Your task to perform on an android device: open app "YouTube Kids" (install if not already installed) Image 0: 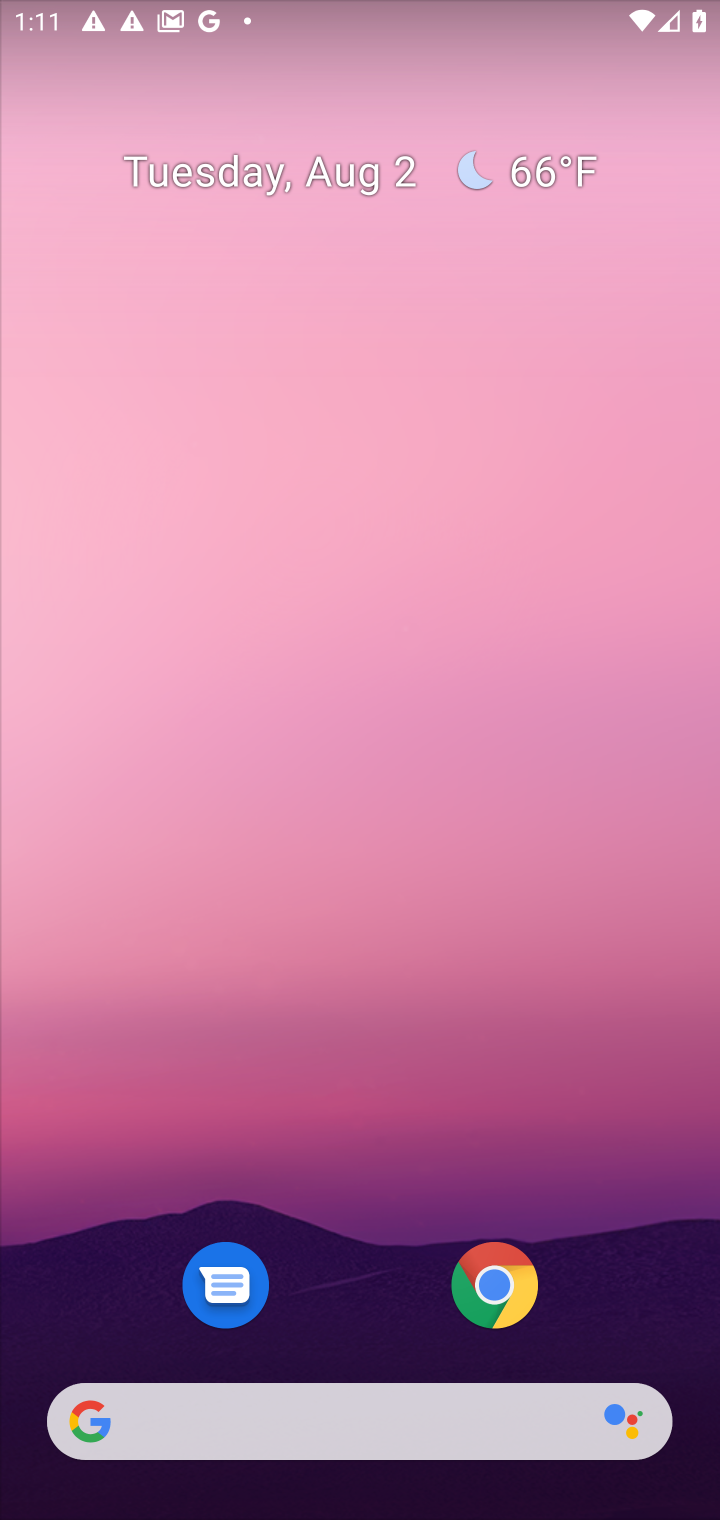
Step 0: drag from (391, 651) to (434, 389)
Your task to perform on an android device: open app "YouTube Kids" (install if not already installed) Image 1: 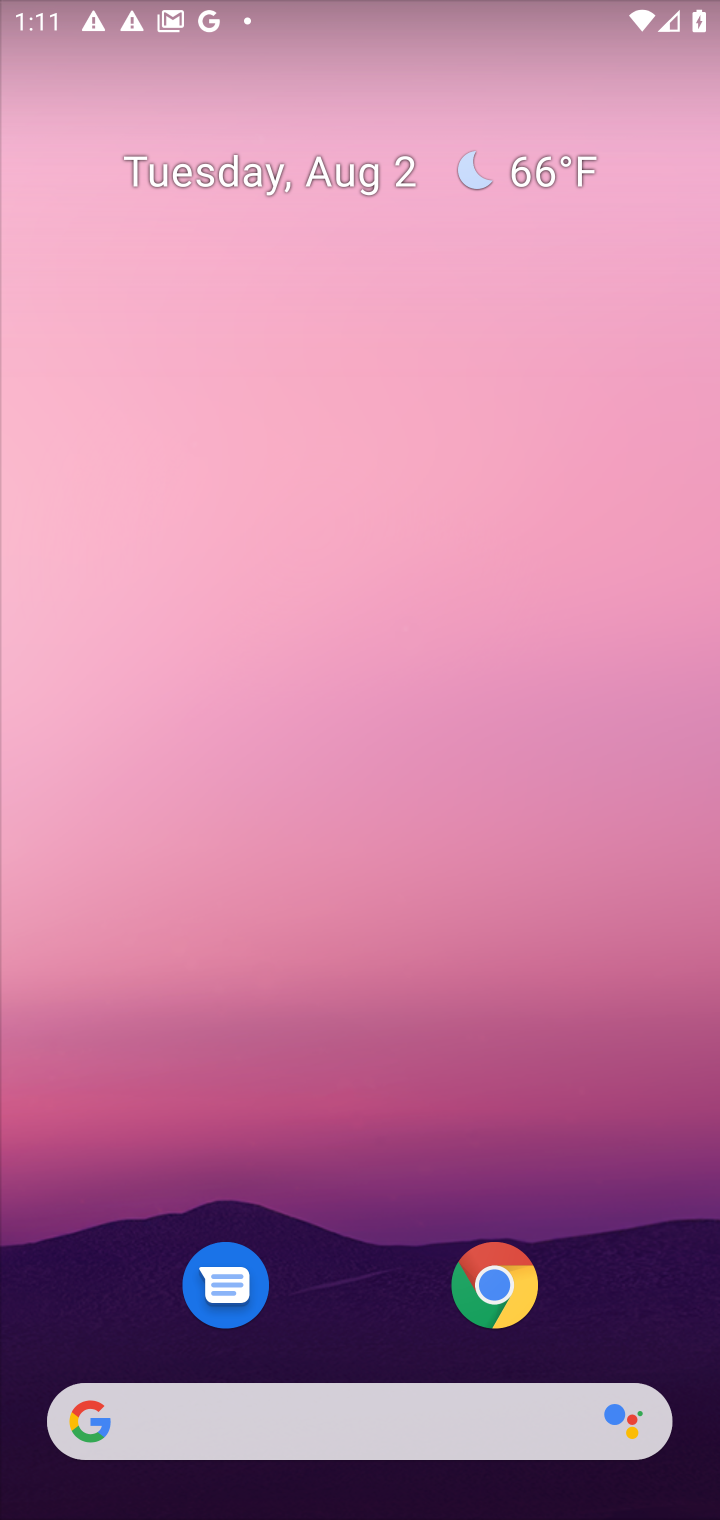
Step 1: drag from (391, 1082) to (421, 253)
Your task to perform on an android device: open app "YouTube Kids" (install if not already installed) Image 2: 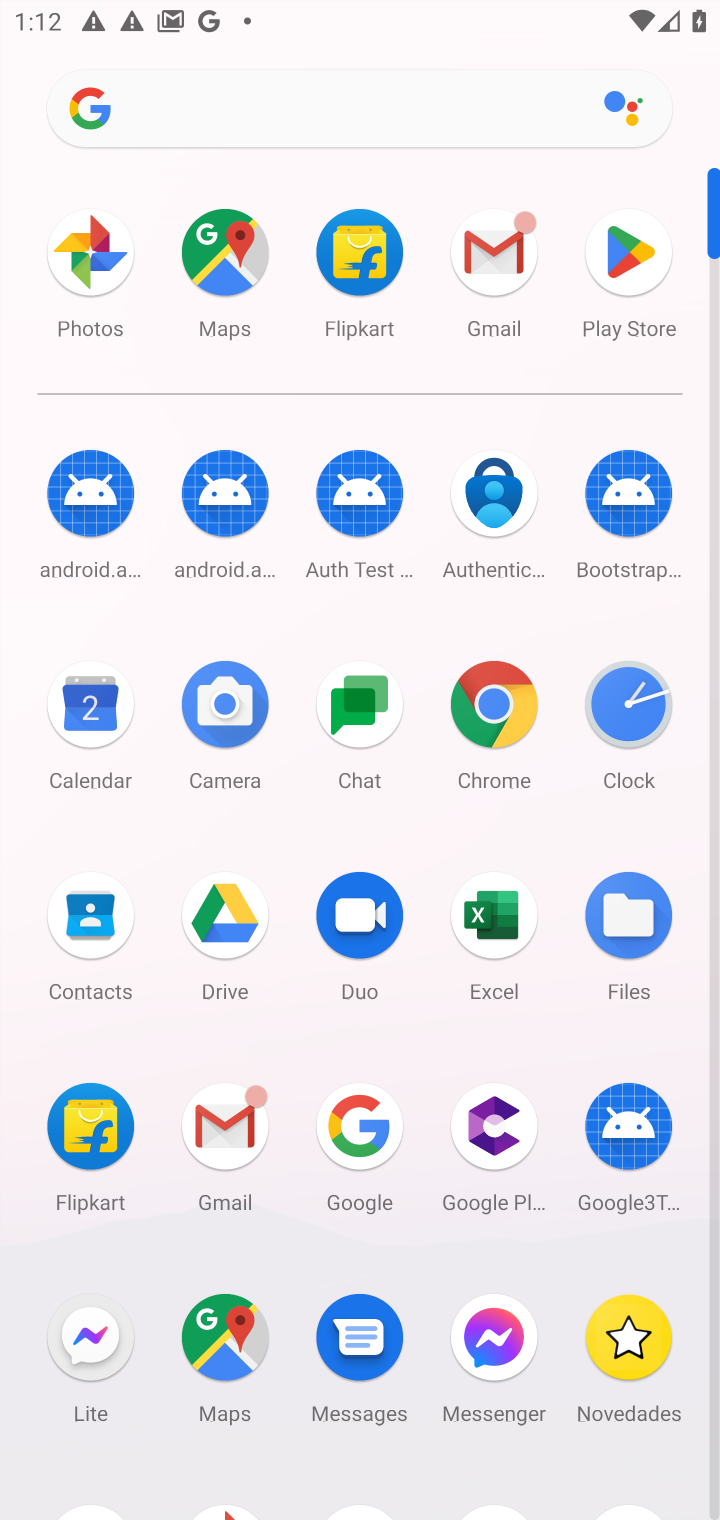
Step 2: drag from (431, 957) to (429, 628)
Your task to perform on an android device: open app "YouTube Kids" (install if not already installed) Image 3: 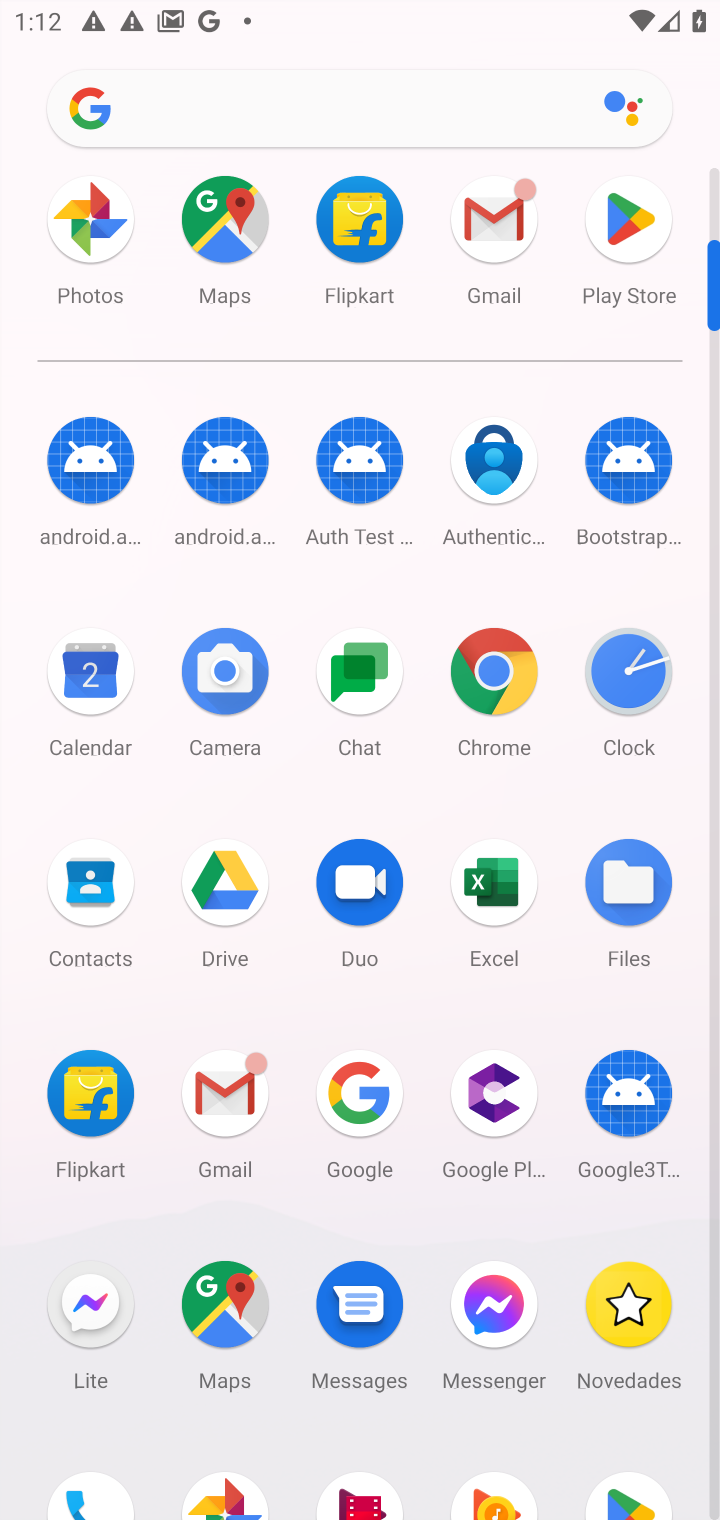
Step 3: click (623, 1491)
Your task to perform on an android device: open app "YouTube Kids" (install if not already installed) Image 4: 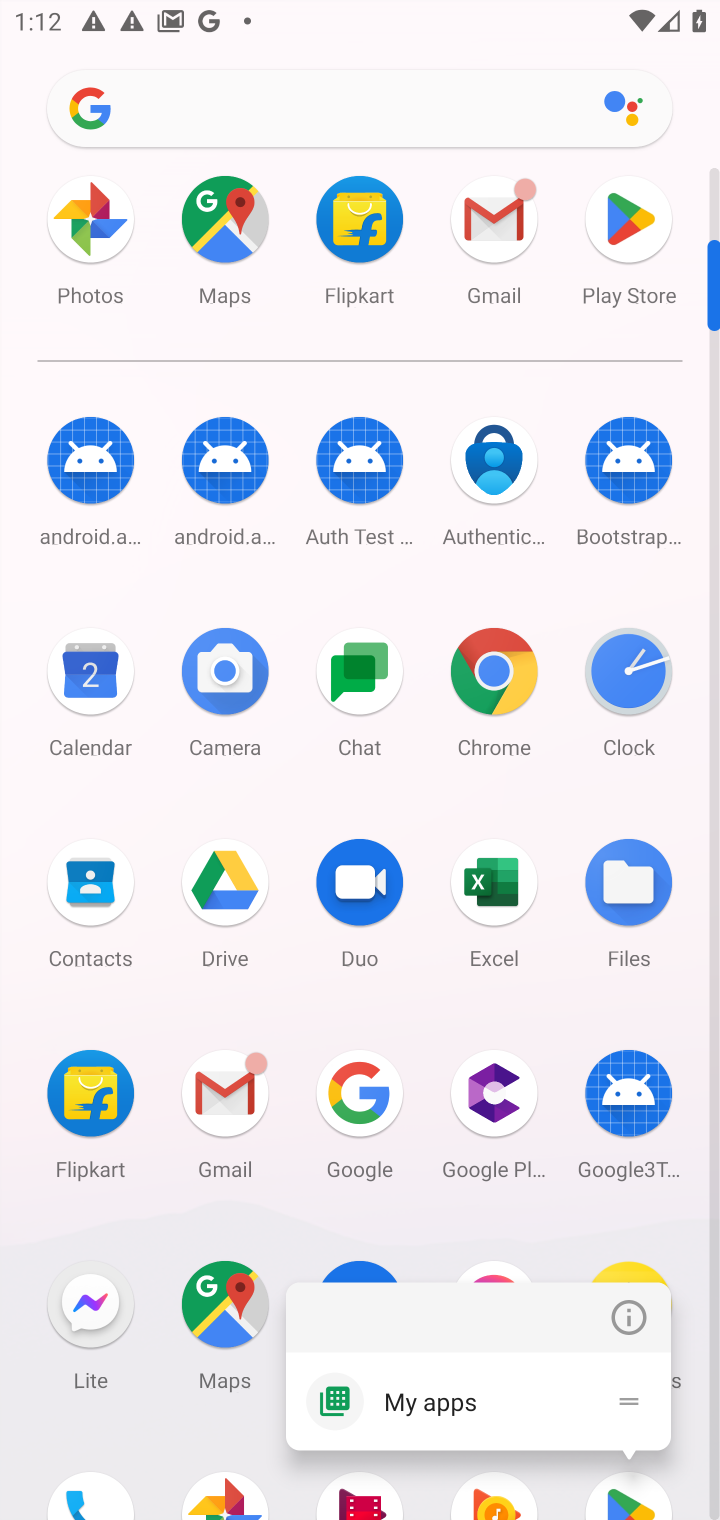
Step 4: click (625, 1504)
Your task to perform on an android device: open app "YouTube Kids" (install if not already installed) Image 5: 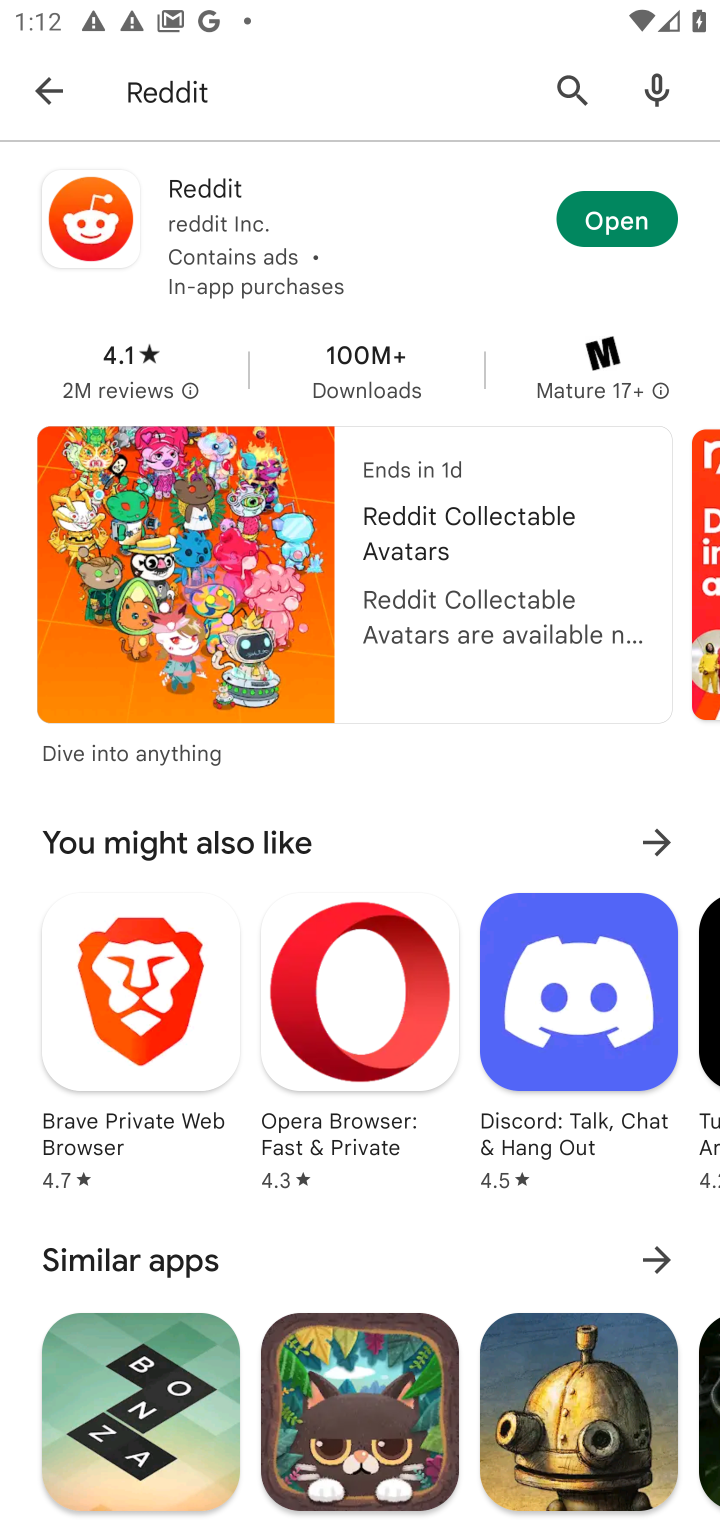
Step 5: click (474, 100)
Your task to perform on an android device: open app "YouTube Kids" (install if not already installed) Image 6: 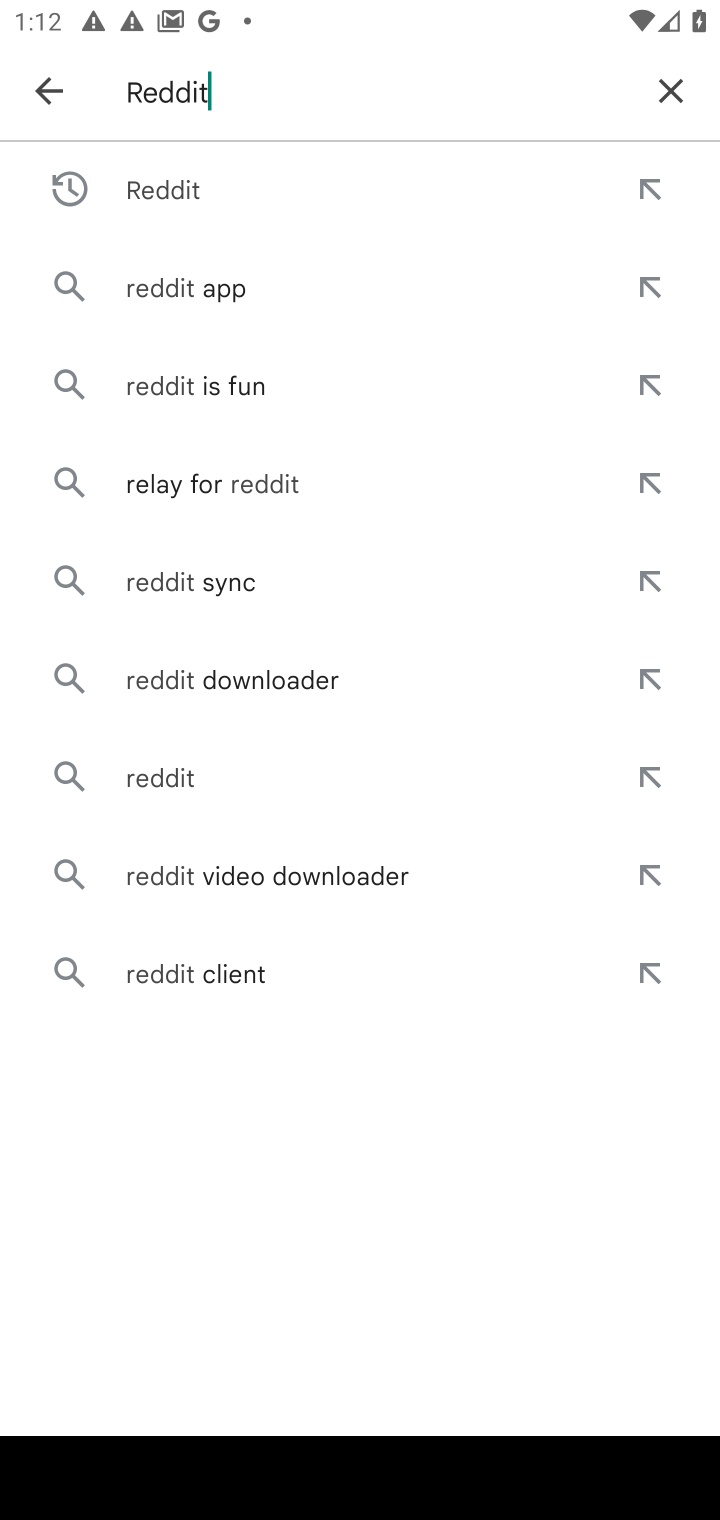
Step 6: click (671, 87)
Your task to perform on an android device: open app "YouTube Kids" (install if not already installed) Image 7: 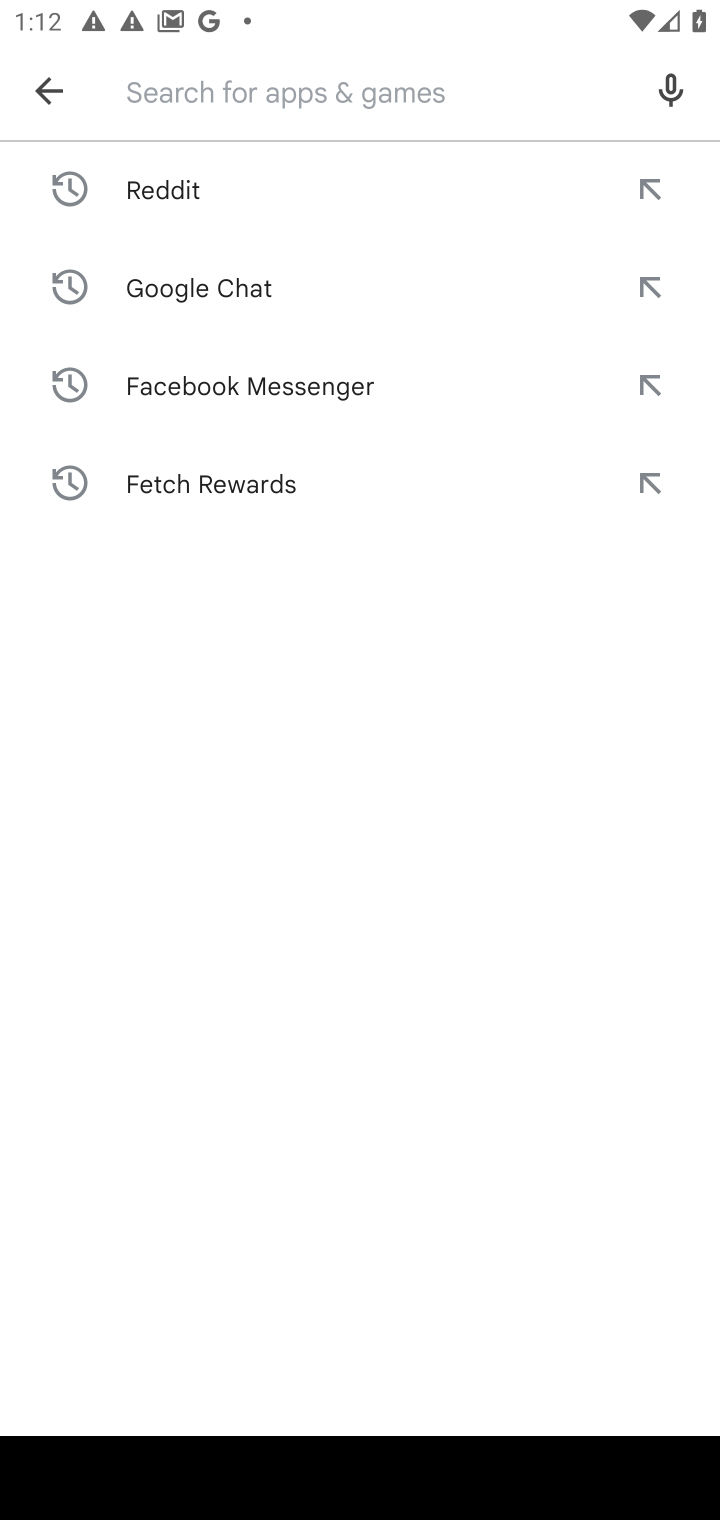
Step 7: type "YouTube Kids"
Your task to perform on an android device: open app "YouTube Kids" (install if not already installed) Image 8: 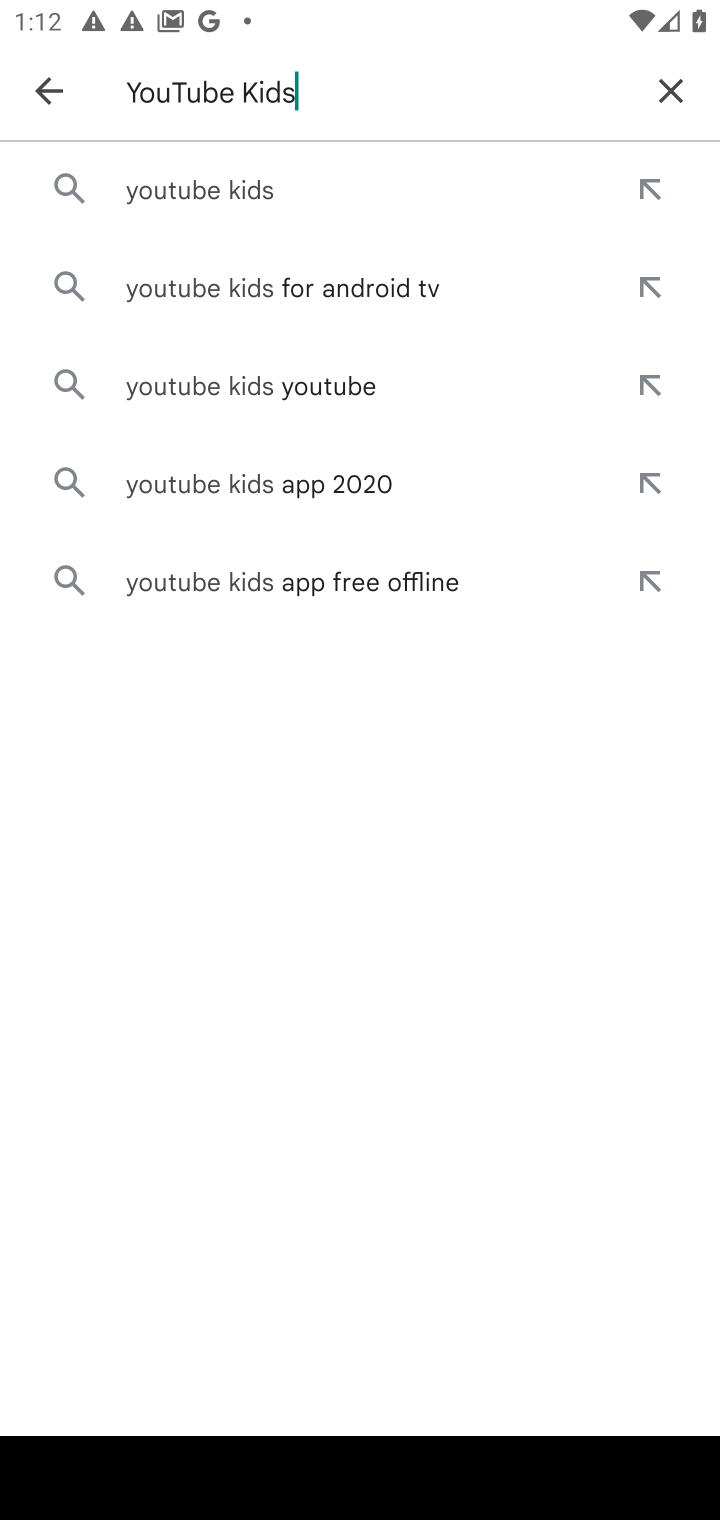
Step 8: press enter
Your task to perform on an android device: open app "YouTube Kids" (install if not already installed) Image 9: 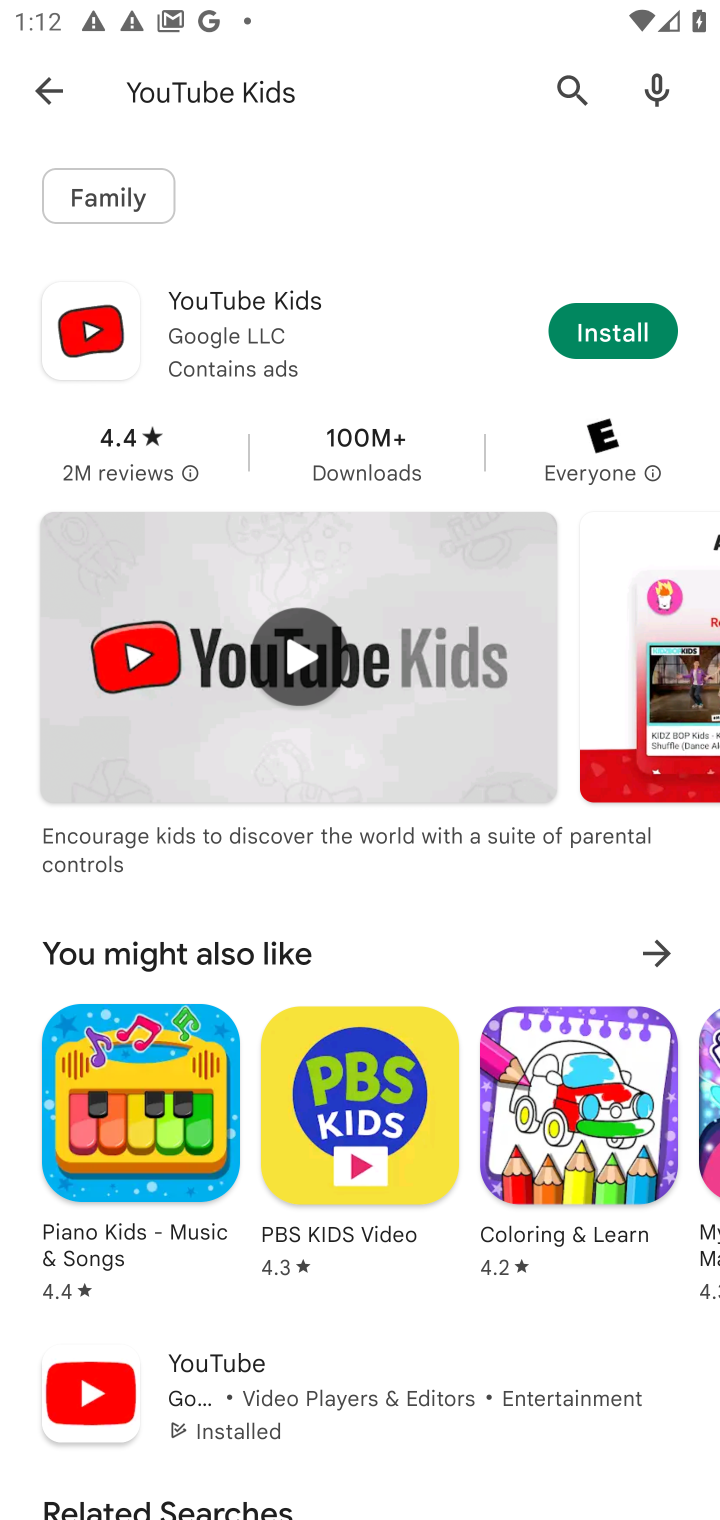
Step 9: click (639, 319)
Your task to perform on an android device: open app "YouTube Kids" (install if not already installed) Image 10: 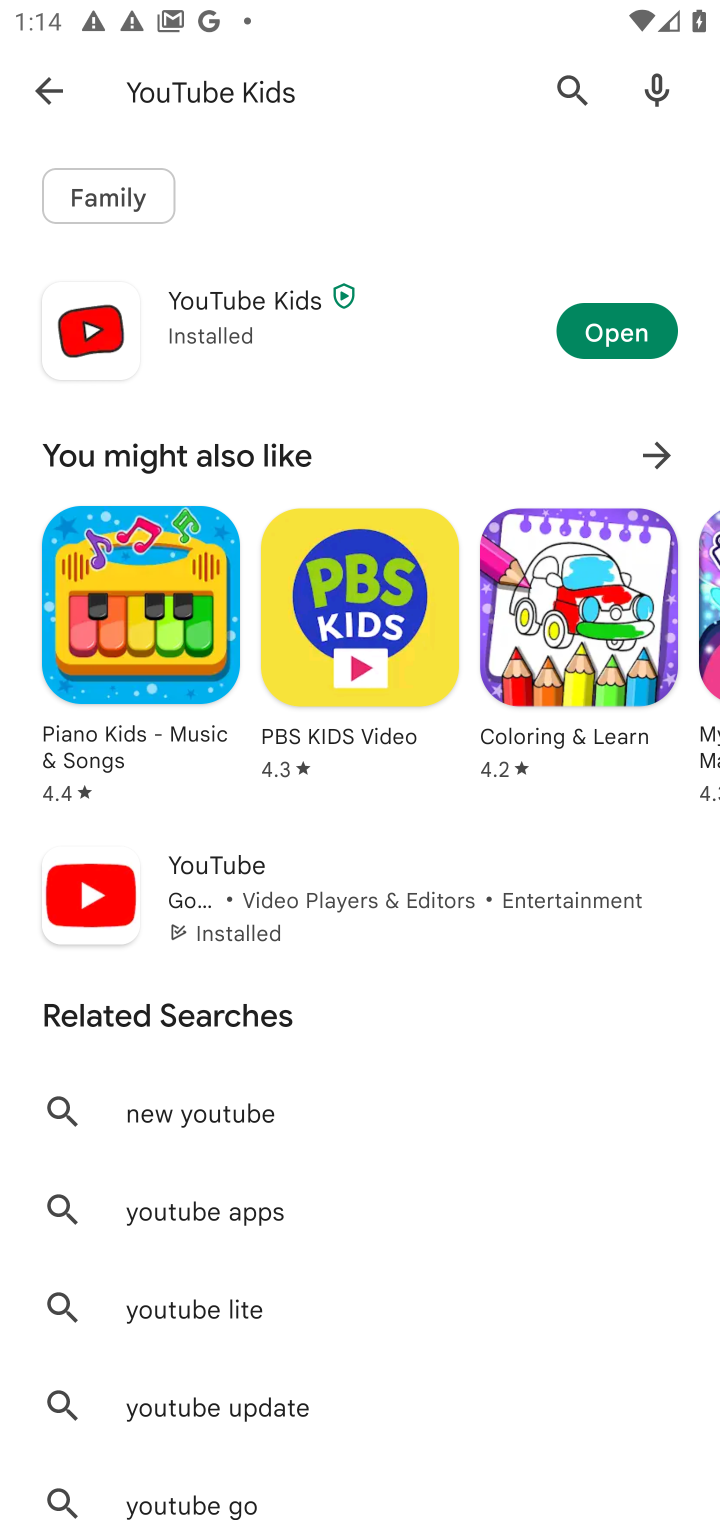
Step 10: click (598, 337)
Your task to perform on an android device: open app "YouTube Kids" (install if not already installed) Image 11: 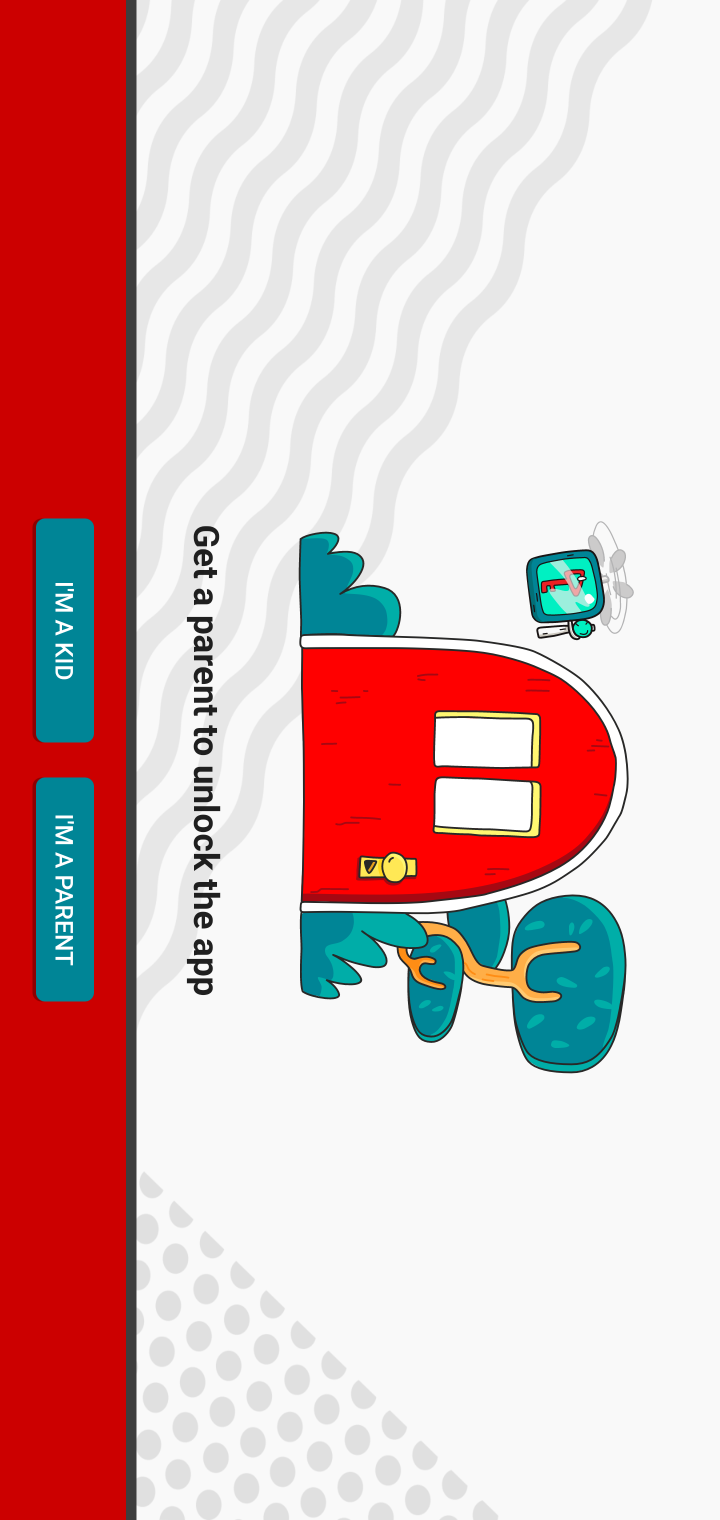
Step 11: task complete